Your task to perform on an android device: turn on translation in the chrome app Image 0: 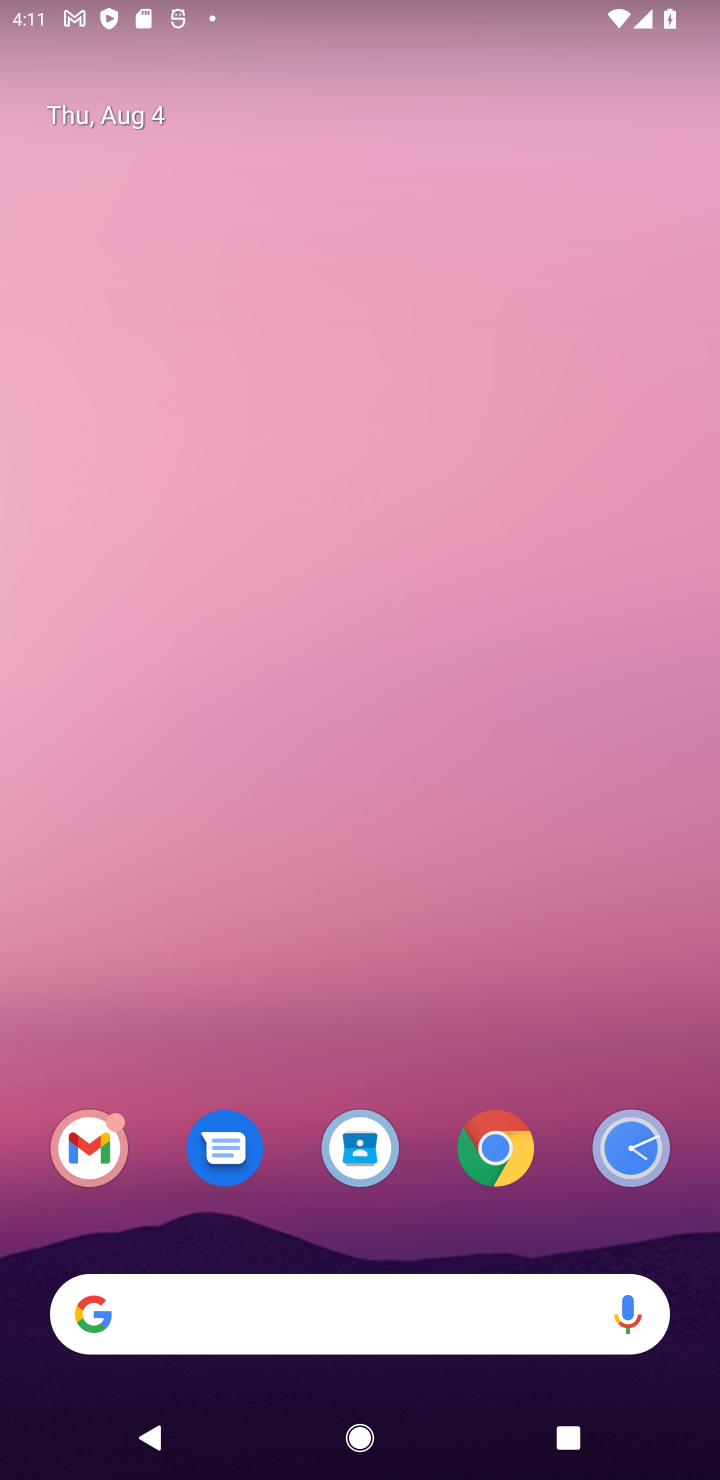
Step 0: click (497, 1150)
Your task to perform on an android device: turn on translation in the chrome app Image 1: 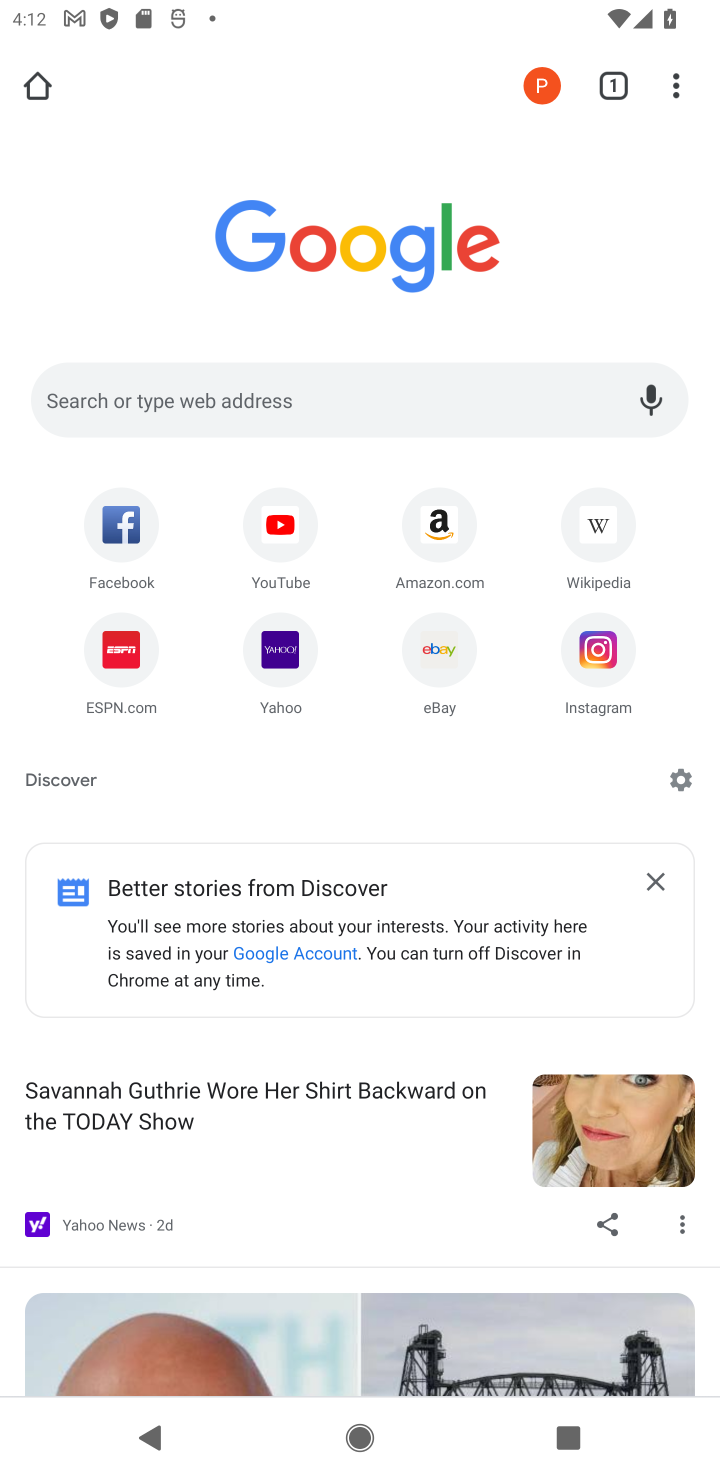
Step 1: click (675, 91)
Your task to perform on an android device: turn on translation in the chrome app Image 2: 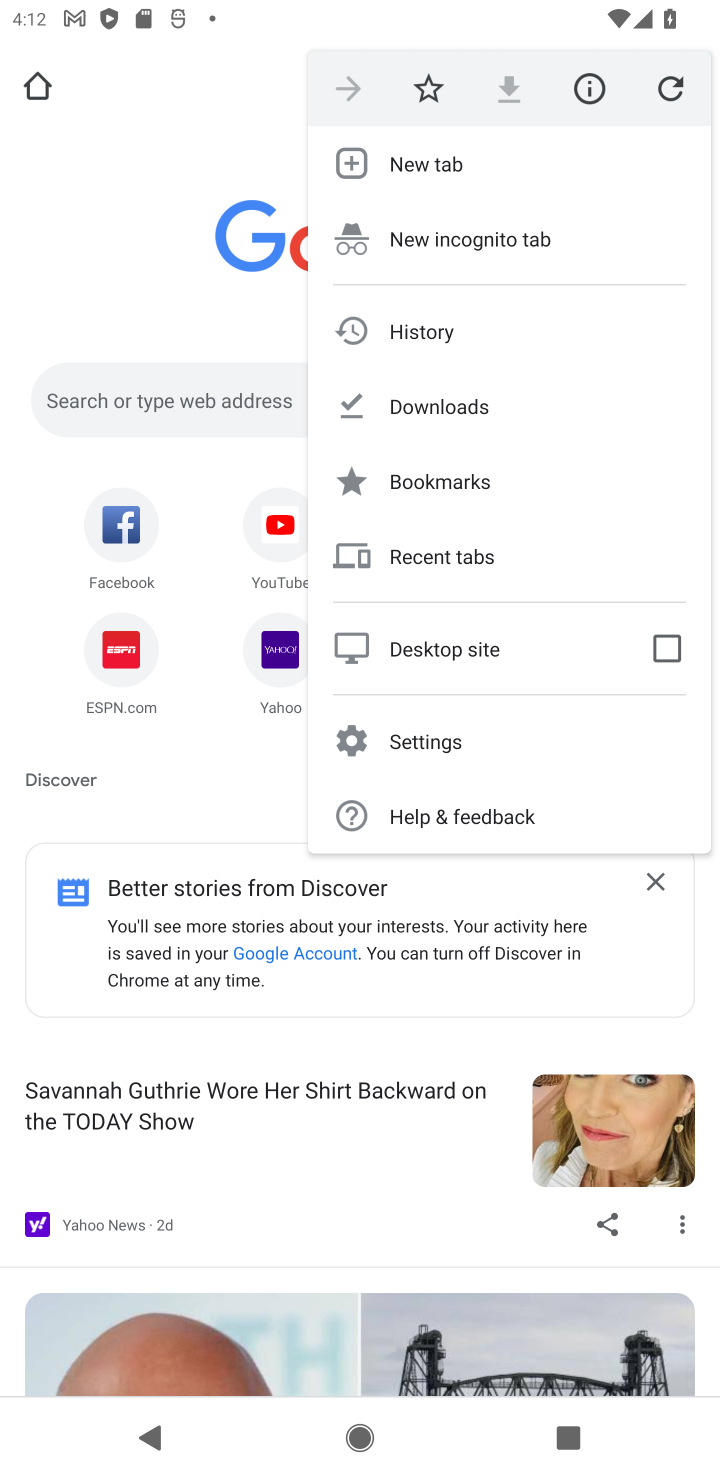
Step 2: click (423, 737)
Your task to perform on an android device: turn on translation in the chrome app Image 3: 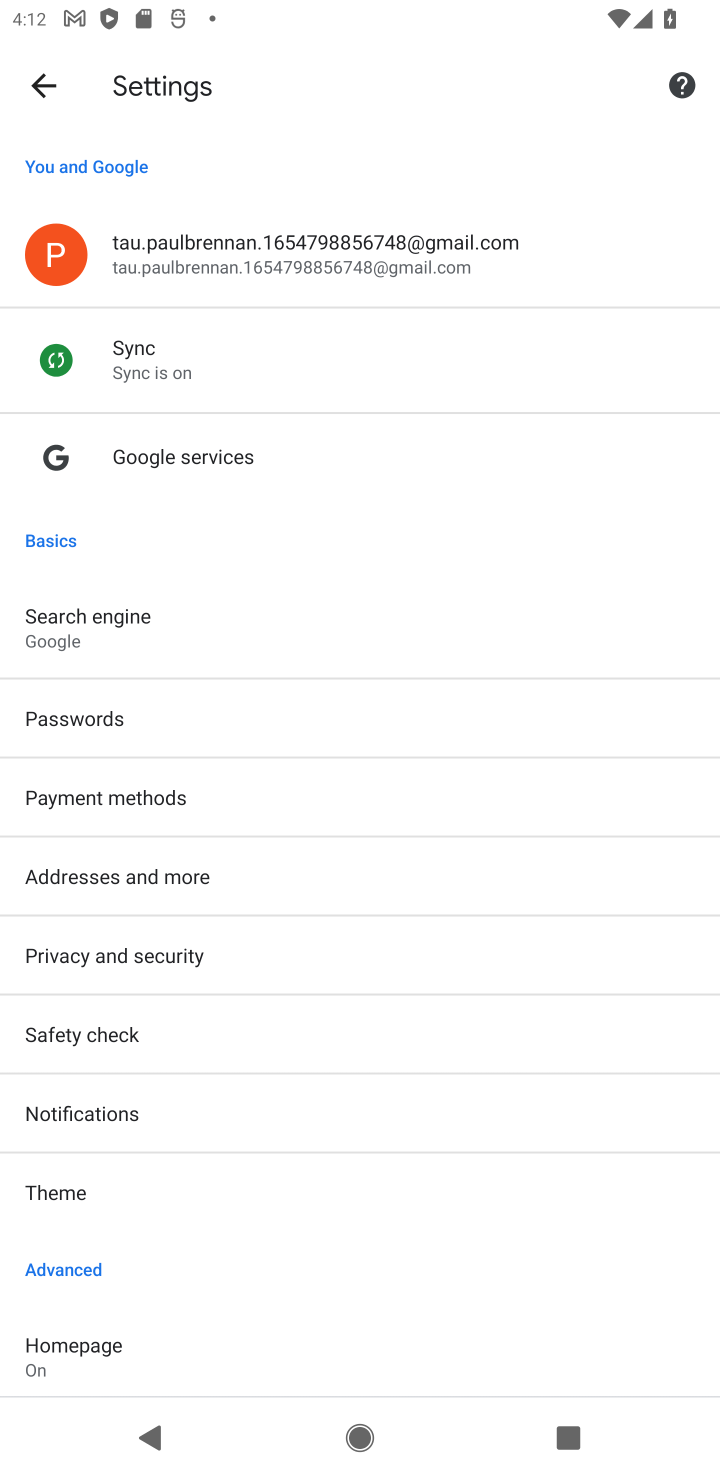
Step 3: drag from (284, 1240) to (357, 474)
Your task to perform on an android device: turn on translation in the chrome app Image 4: 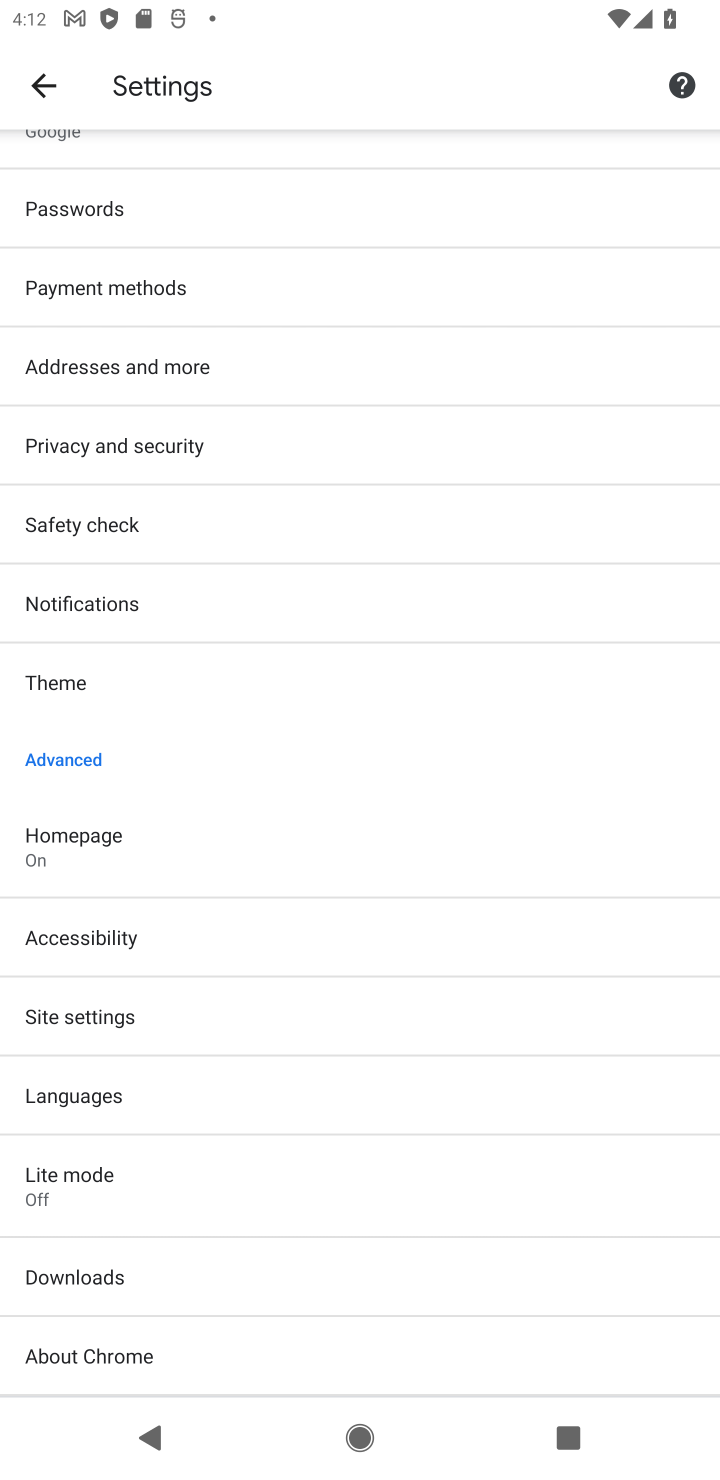
Step 4: click (75, 1089)
Your task to perform on an android device: turn on translation in the chrome app Image 5: 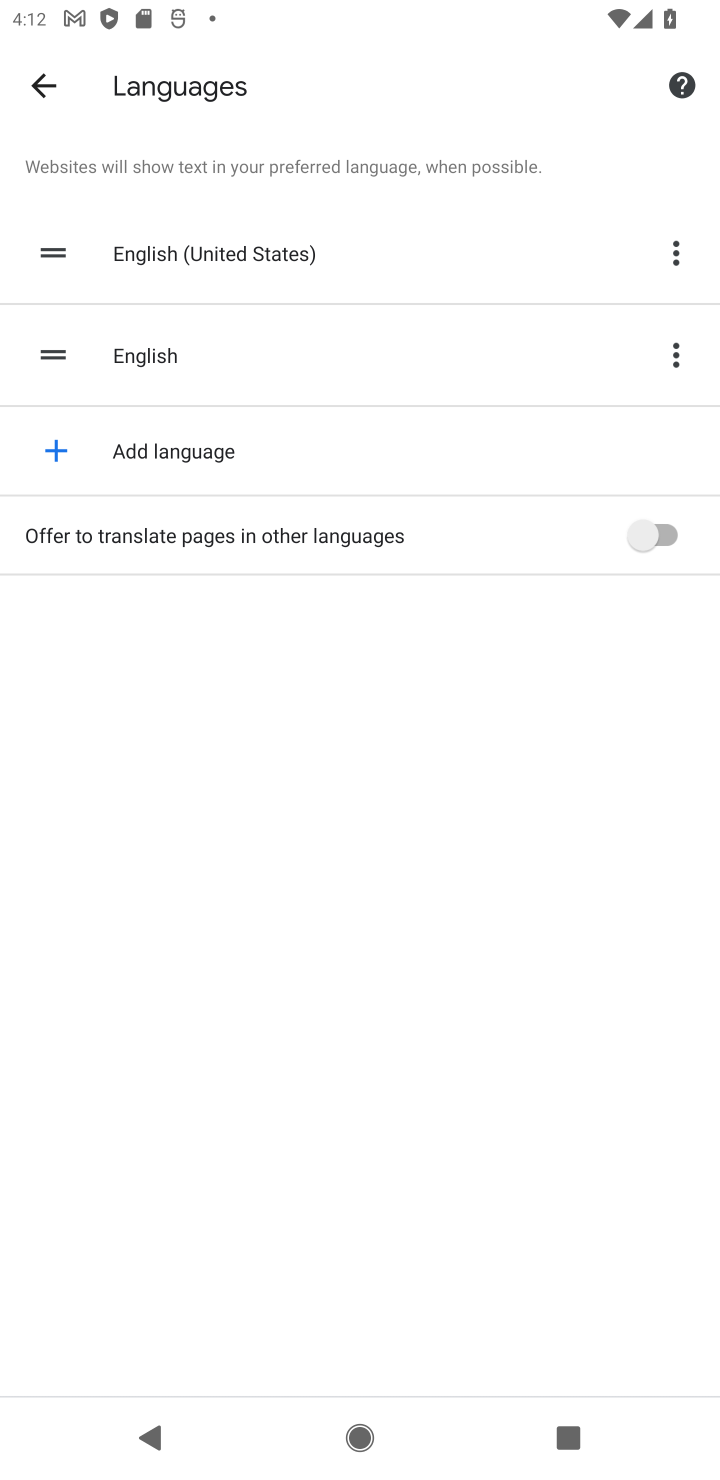
Step 5: click (671, 534)
Your task to perform on an android device: turn on translation in the chrome app Image 6: 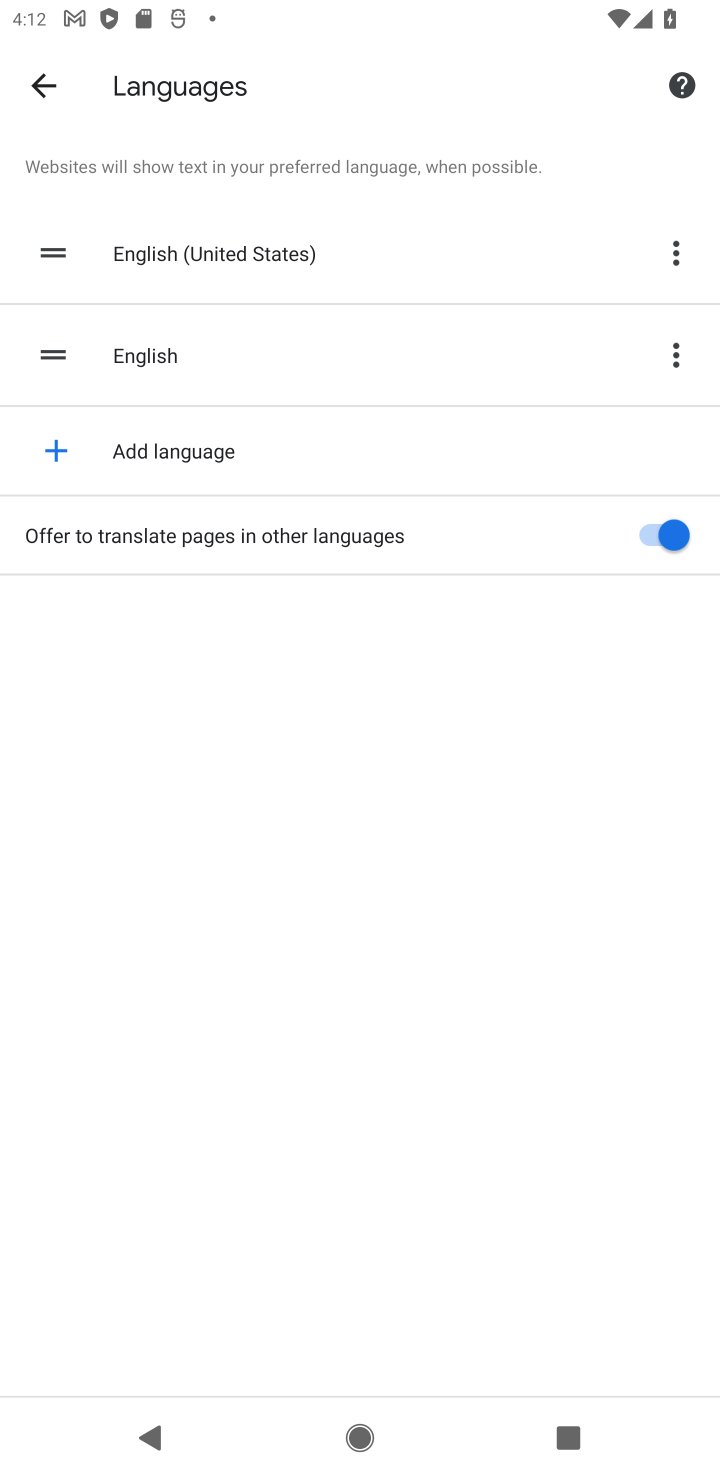
Step 6: task complete